Your task to perform on an android device: turn pop-ups on in chrome Image 0: 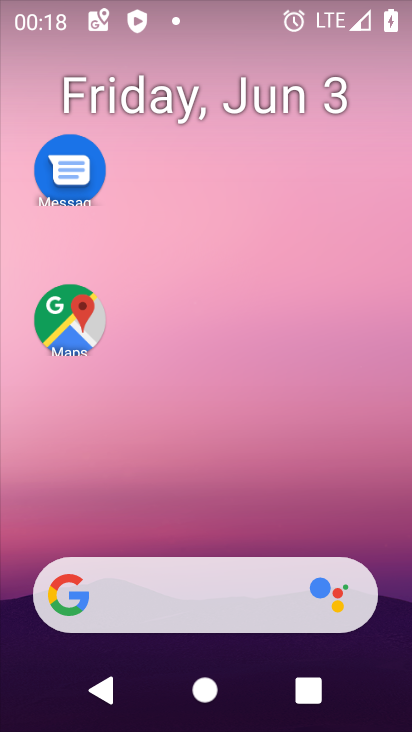
Step 0: drag from (369, 549) to (210, 116)
Your task to perform on an android device: turn pop-ups on in chrome Image 1: 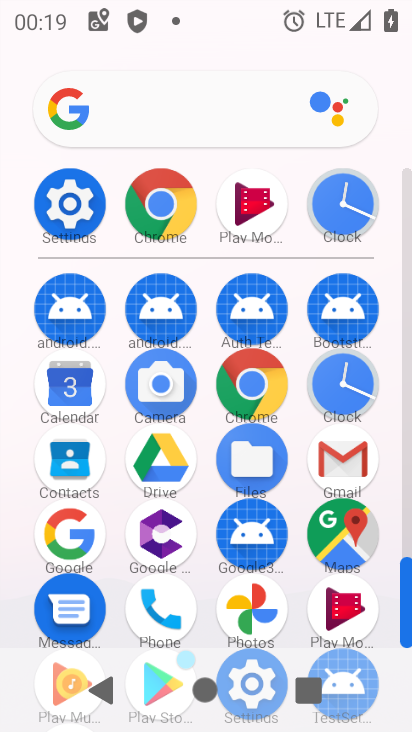
Step 1: click (241, 391)
Your task to perform on an android device: turn pop-ups on in chrome Image 2: 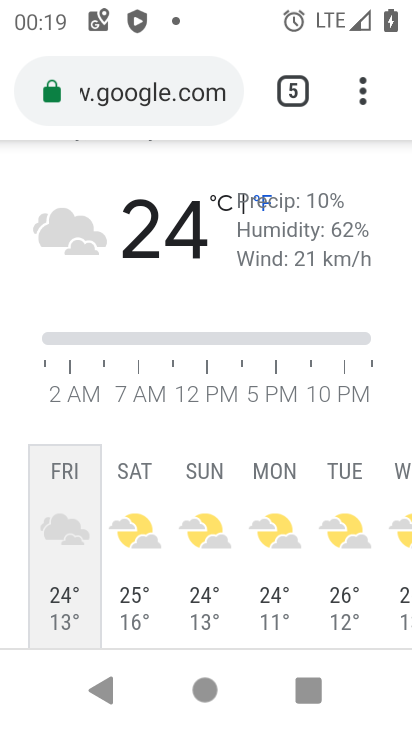
Step 2: drag from (364, 73) to (0, 401)
Your task to perform on an android device: turn pop-ups on in chrome Image 3: 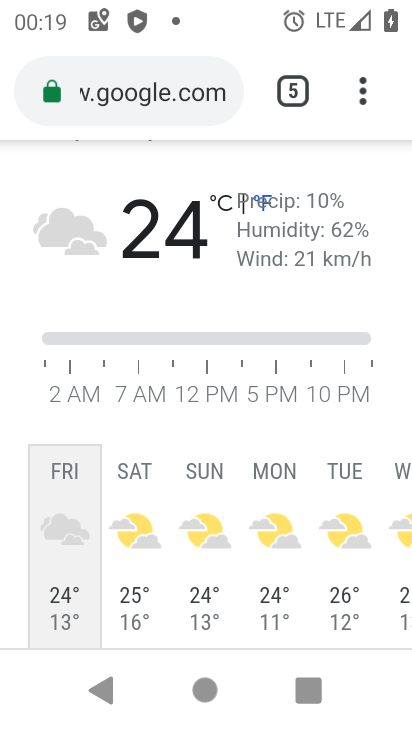
Step 3: drag from (361, 70) to (131, 494)
Your task to perform on an android device: turn pop-ups on in chrome Image 4: 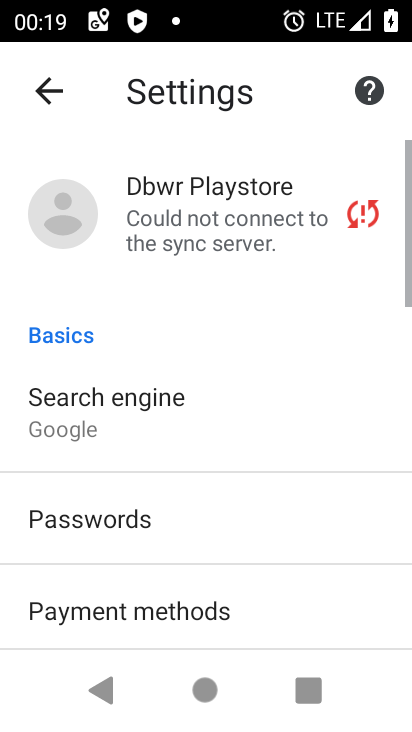
Step 4: drag from (286, 578) to (171, 228)
Your task to perform on an android device: turn pop-ups on in chrome Image 5: 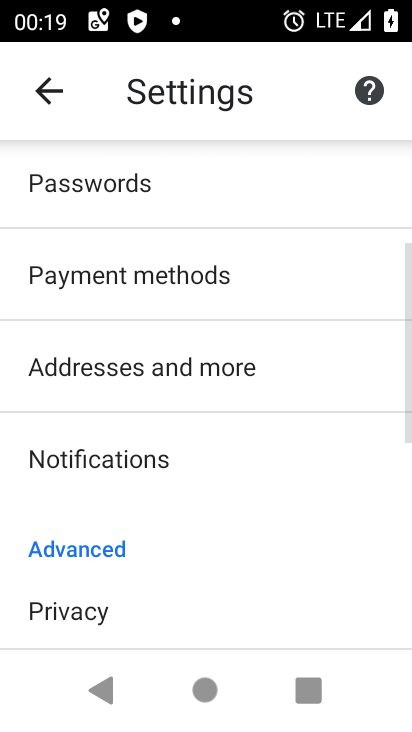
Step 5: drag from (264, 650) to (227, 234)
Your task to perform on an android device: turn pop-ups on in chrome Image 6: 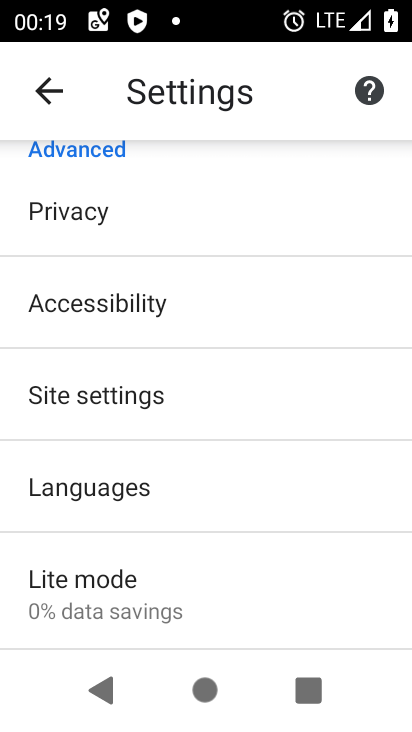
Step 6: click (128, 421)
Your task to perform on an android device: turn pop-ups on in chrome Image 7: 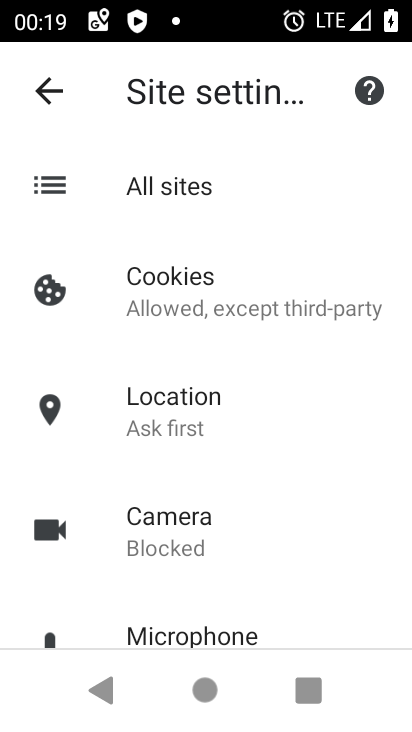
Step 7: drag from (281, 589) to (176, 139)
Your task to perform on an android device: turn pop-ups on in chrome Image 8: 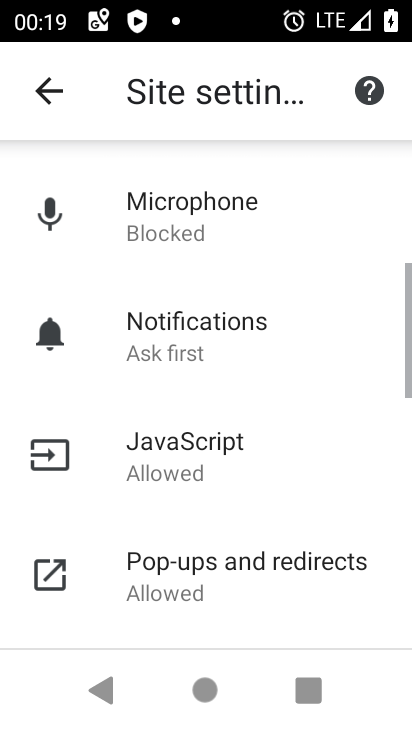
Step 8: click (245, 565)
Your task to perform on an android device: turn pop-ups on in chrome Image 9: 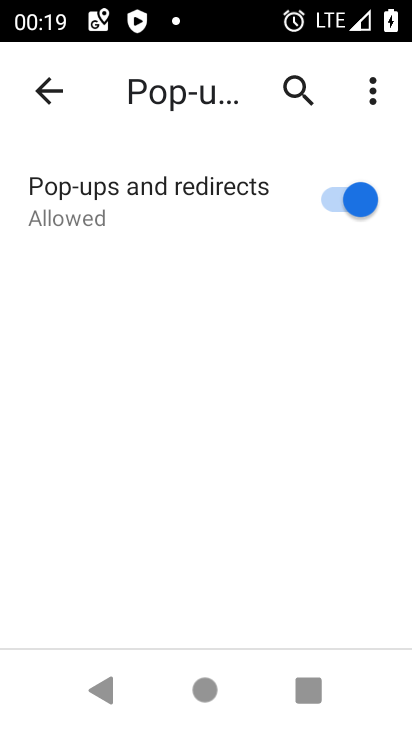
Step 9: task complete